Your task to perform on an android device: turn off picture-in-picture Image 0: 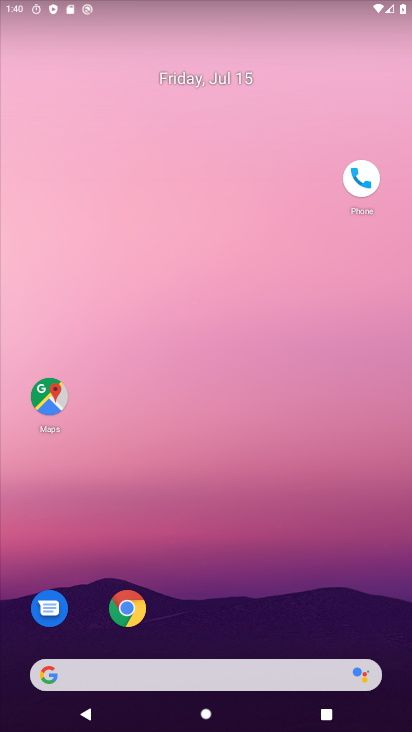
Step 0: drag from (182, 645) to (270, 223)
Your task to perform on an android device: turn off picture-in-picture Image 1: 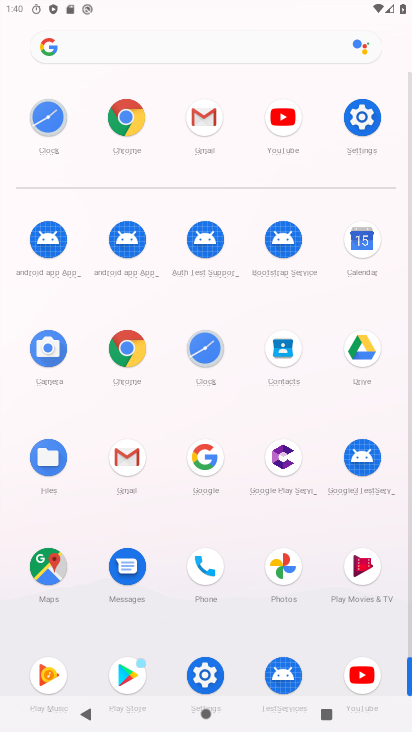
Step 1: click (191, 671)
Your task to perform on an android device: turn off picture-in-picture Image 2: 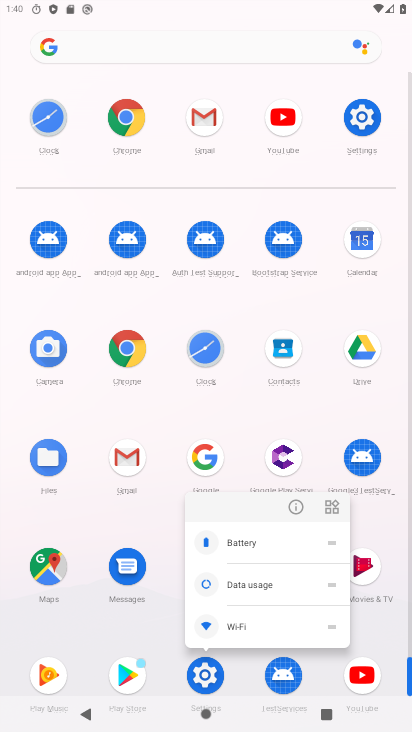
Step 2: click (288, 502)
Your task to perform on an android device: turn off picture-in-picture Image 3: 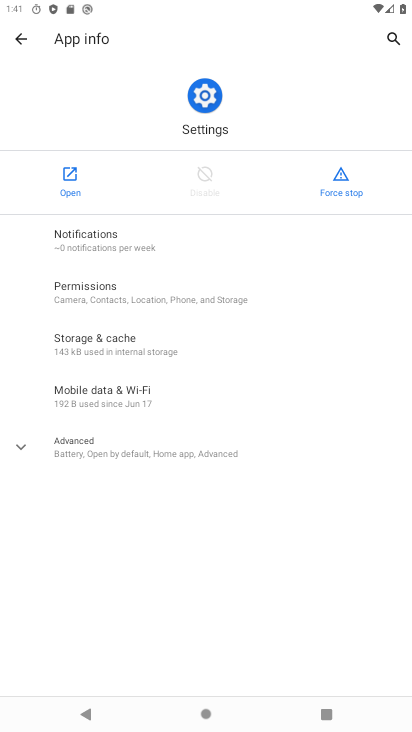
Step 3: click (77, 191)
Your task to perform on an android device: turn off picture-in-picture Image 4: 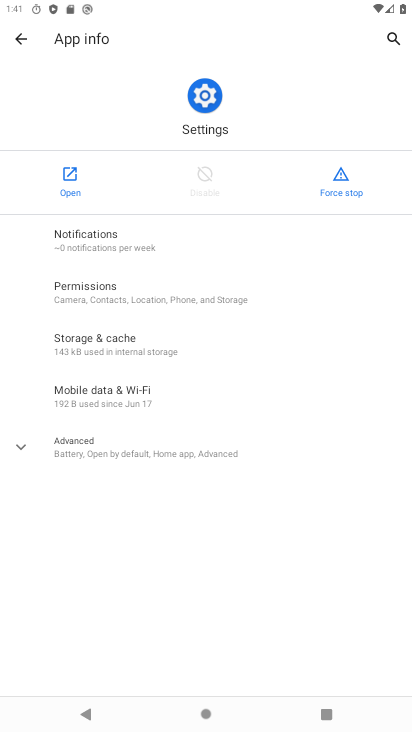
Step 4: click (77, 190)
Your task to perform on an android device: turn off picture-in-picture Image 5: 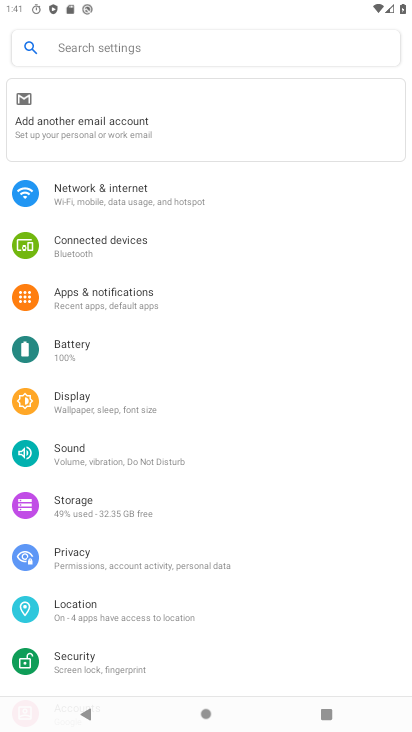
Step 5: click (127, 50)
Your task to perform on an android device: turn off picture-in-picture Image 6: 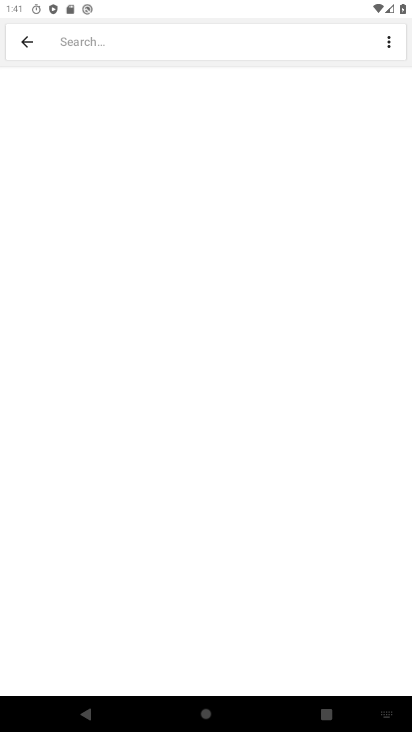
Step 6: click (14, 30)
Your task to perform on an android device: turn off picture-in-picture Image 7: 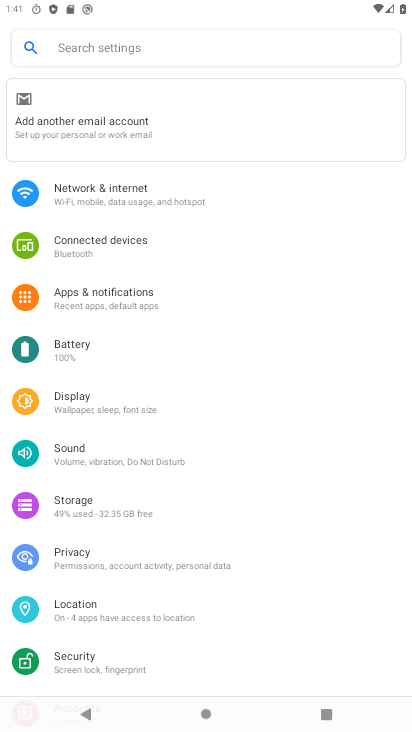
Step 7: click (85, 310)
Your task to perform on an android device: turn off picture-in-picture Image 8: 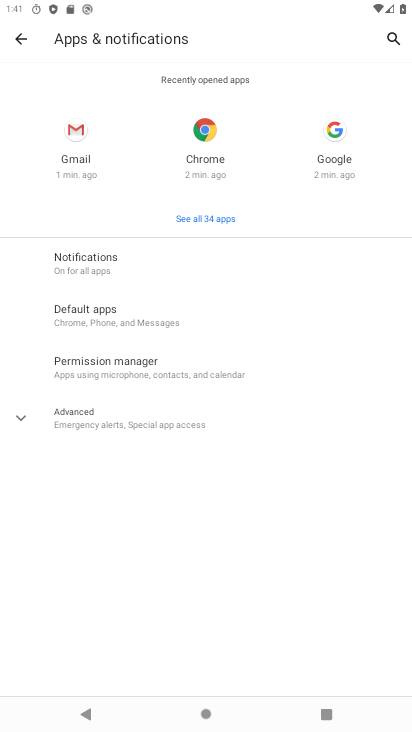
Step 8: click (166, 272)
Your task to perform on an android device: turn off picture-in-picture Image 9: 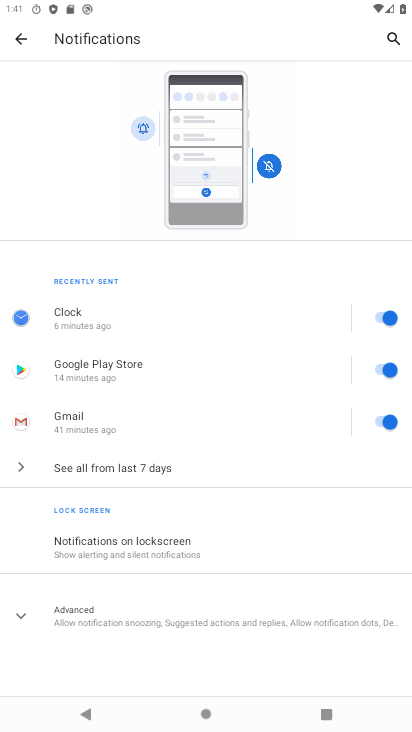
Step 9: click (96, 617)
Your task to perform on an android device: turn off picture-in-picture Image 10: 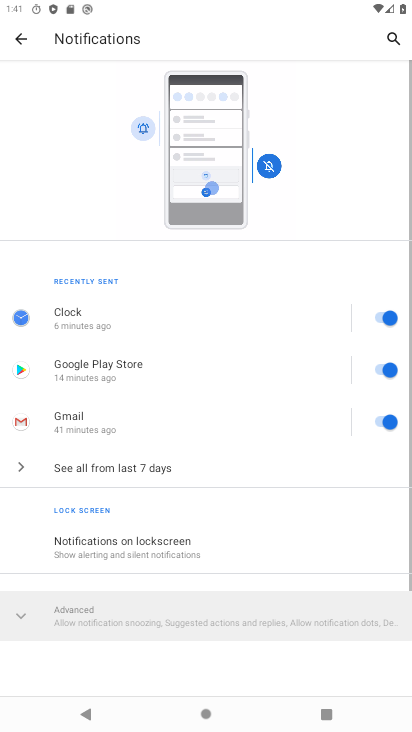
Step 10: drag from (143, 606) to (249, 129)
Your task to perform on an android device: turn off picture-in-picture Image 11: 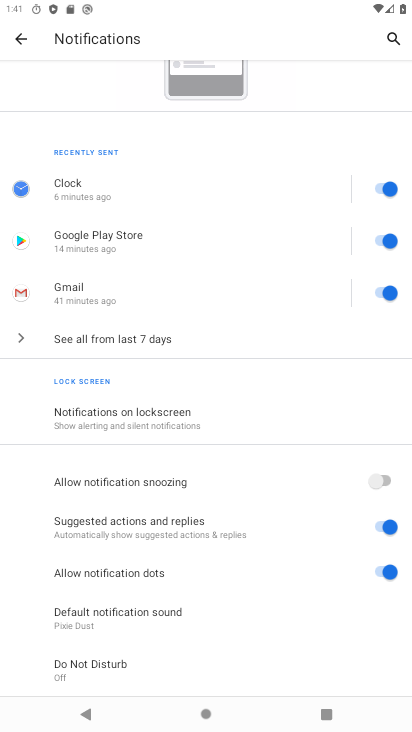
Step 11: click (22, 35)
Your task to perform on an android device: turn off picture-in-picture Image 12: 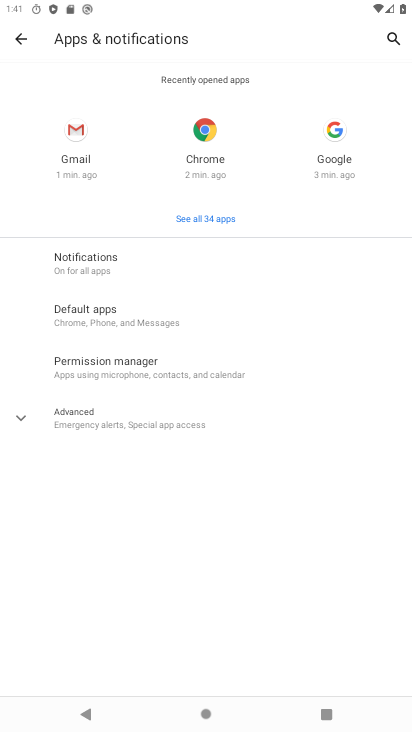
Step 12: click (111, 434)
Your task to perform on an android device: turn off picture-in-picture Image 13: 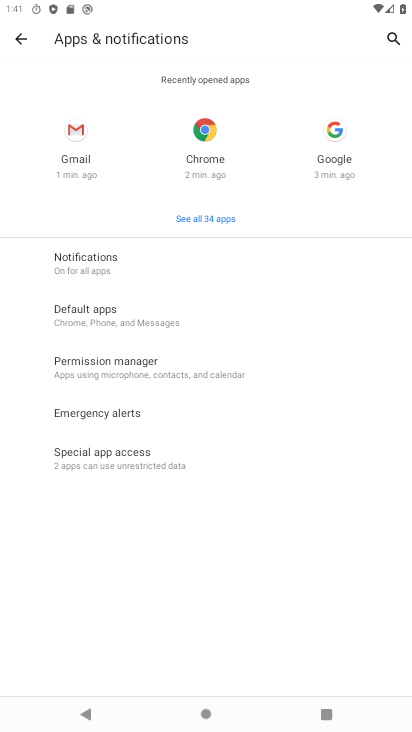
Step 13: drag from (115, 429) to (161, 175)
Your task to perform on an android device: turn off picture-in-picture Image 14: 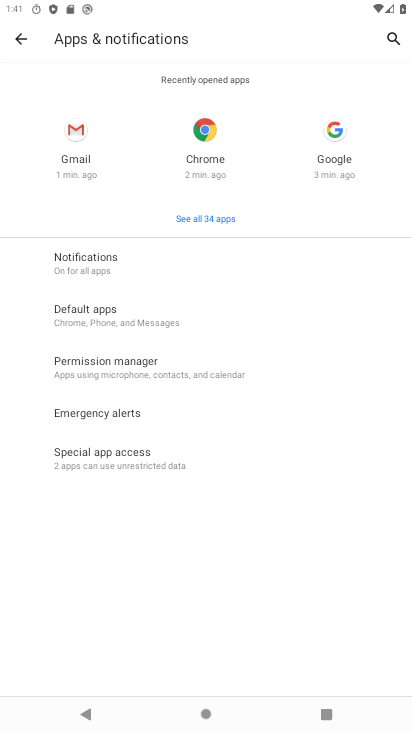
Step 14: click (130, 446)
Your task to perform on an android device: turn off picture-in-picture Image 15: 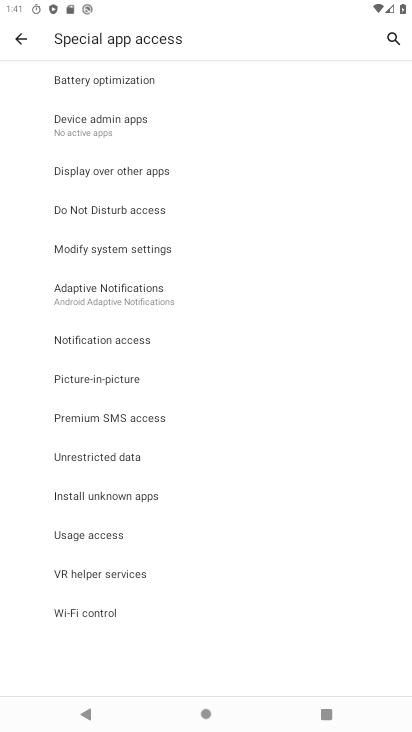
Step 15: click (102, 373)
Your task to perform on an android device: turn off picture-in-picture Image 16: 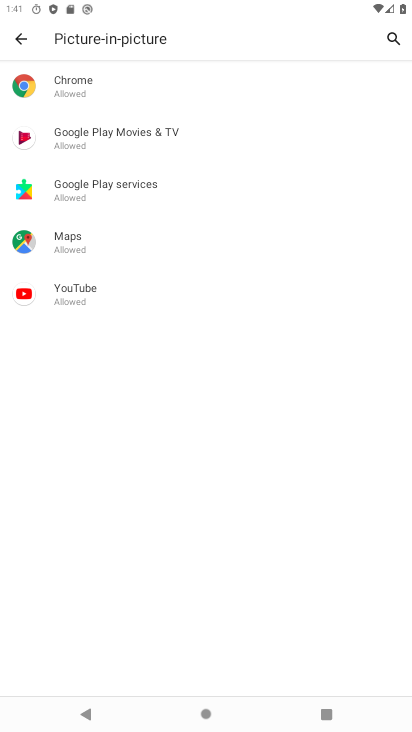
Step 16: task complete